Your task to perform on an android device: Go to settings Image 0: 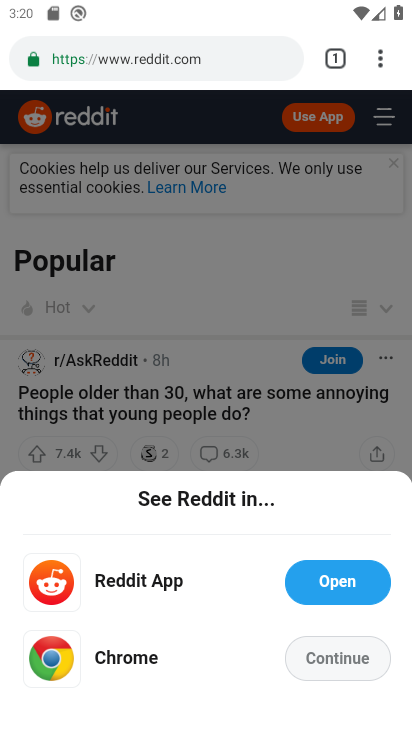
Step 0: press home button
Your task to perform on an android device: Go to settings Image 1: 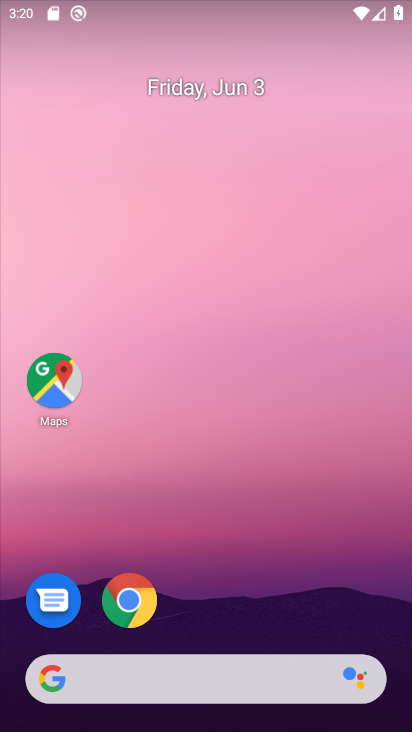
Step 1: drag from (330, 565) to (263, 127)
Your task to perform on an android device: Go to settings Image 2: 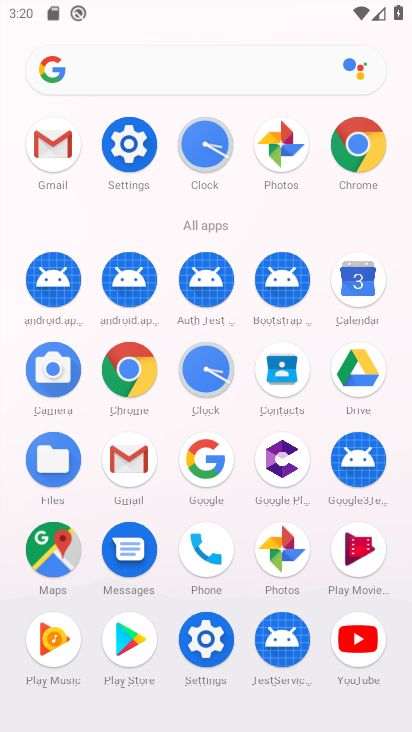
Step 2: click (136, 140)
Your task to perform on an android device: Go to settings Image 3: 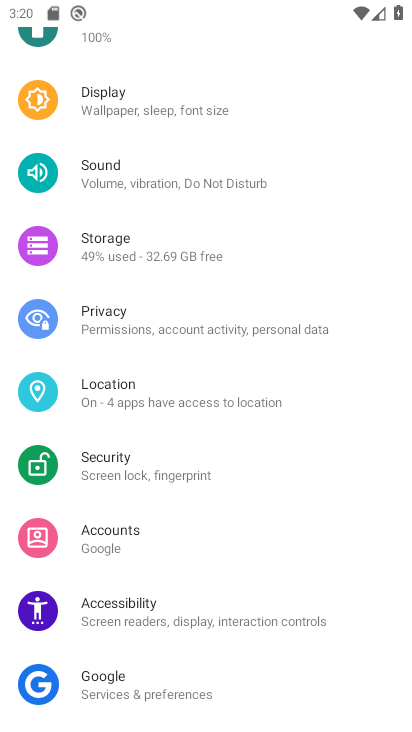
Step 3: task complete